Your task to perform on an android device: turn smart compose on in the gmail app Image 0: 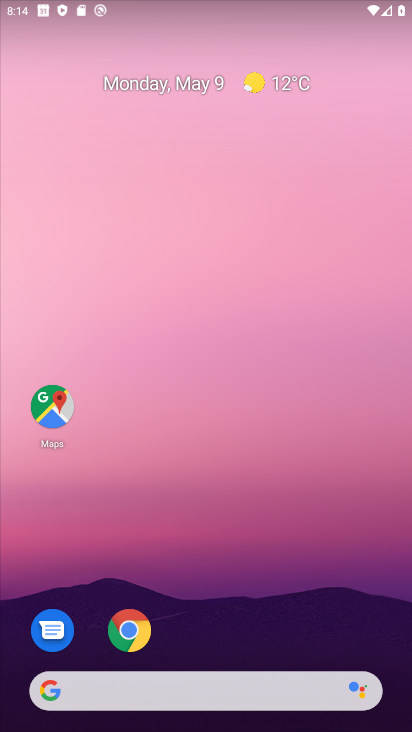
Step 0: drag from (223, 670) to (243, 214)
Your task to perform on an android device: turn smart compose on in the gmail app Image 1: 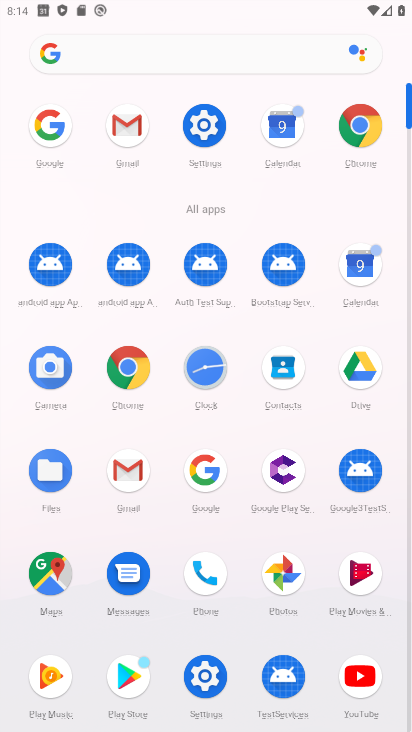
Step 1: click (123, 133)
Your task to perform on an android device: turn smart compose on in the gmail app Image 2: 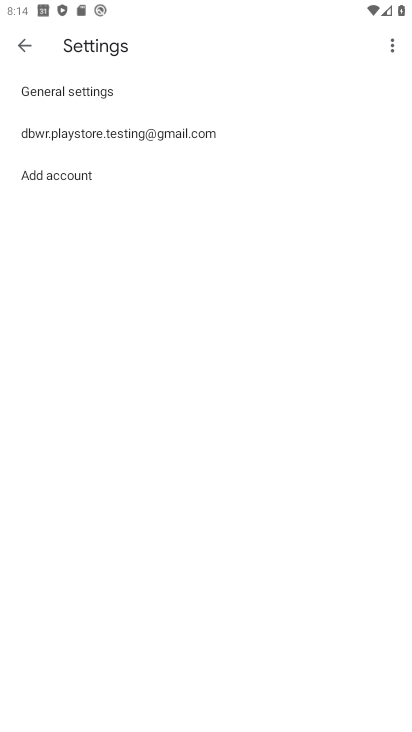
Step 2: click (49, 138)
Your task to perform on an android device: turn smart compose on in the gmail app Image 3: 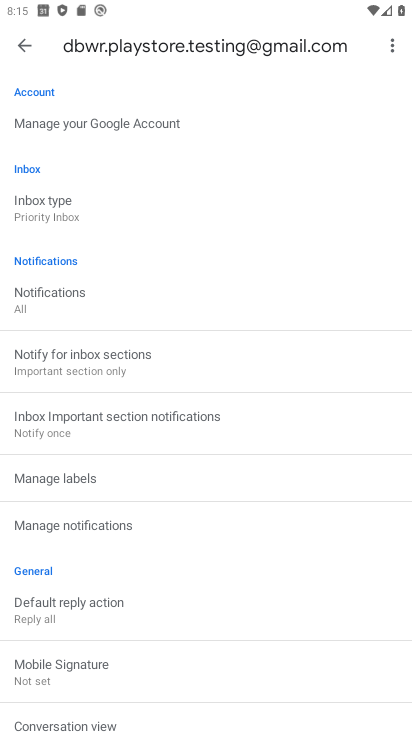
Step 3: task complete